Your task to perform on an android device: turn notification dots off Image 0: 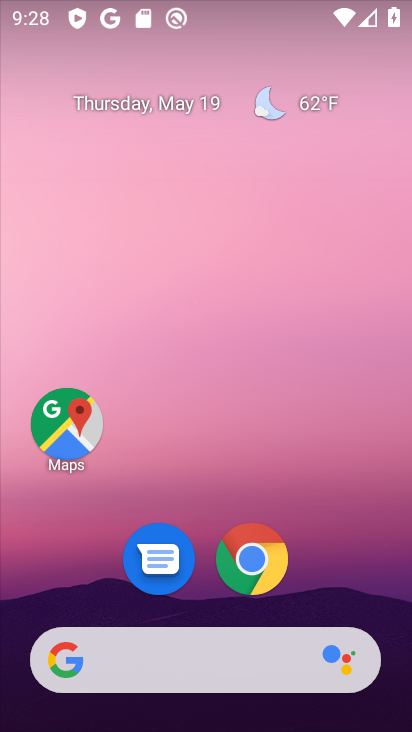
Step 0: drag from (334, 578) to (394, 80)
Your task to perform on an android device: turn notification dots off Image 1: 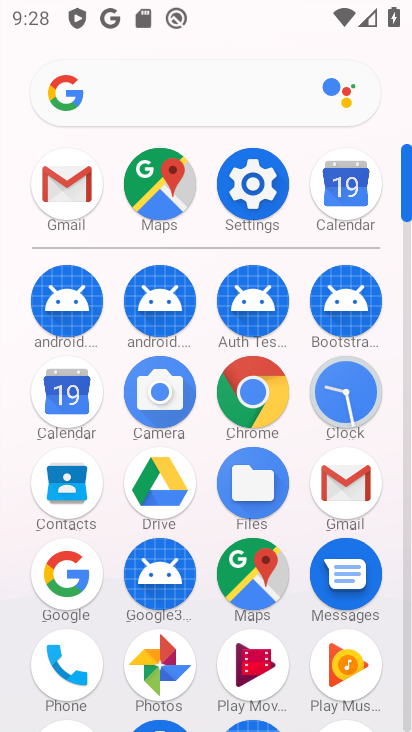
Step 1: click (273, 168)
Your task to perform on an android device: turn notification dots off Image 2: 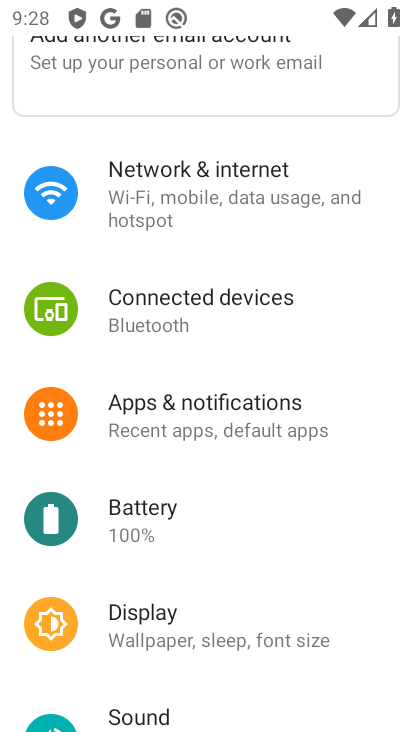
Step 2: click (234, 422)
Your task to perform on an android device: turn notification dots off Image 3: 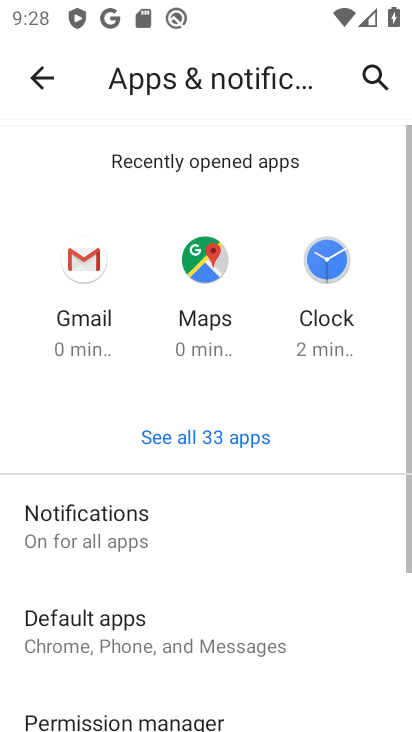
Step 3: click (203, 518)
Your task to perform on an android device: turn notification dots off Image 4: 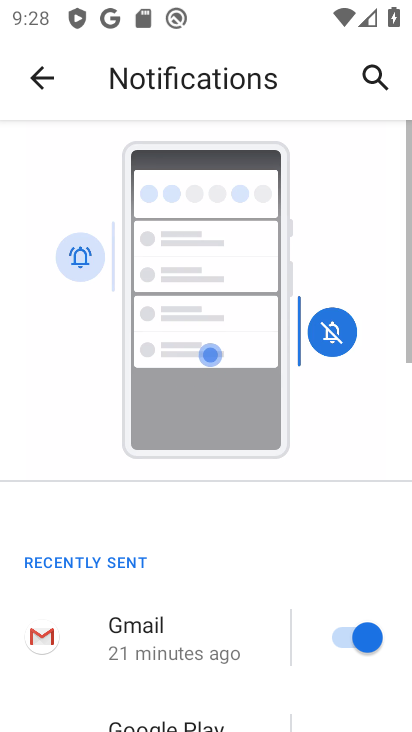
Step 4: drag from (203, 518) to (298, 59)
Your task to perform on an android device: turn notification dots off Image 5: 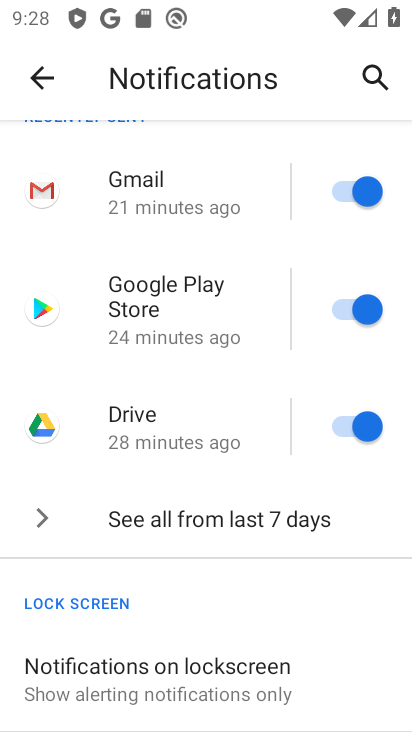
Step 5: drag from (207, 642) to (267, 302)
Your task to perform on an android device: turn notification dots off Image 6: 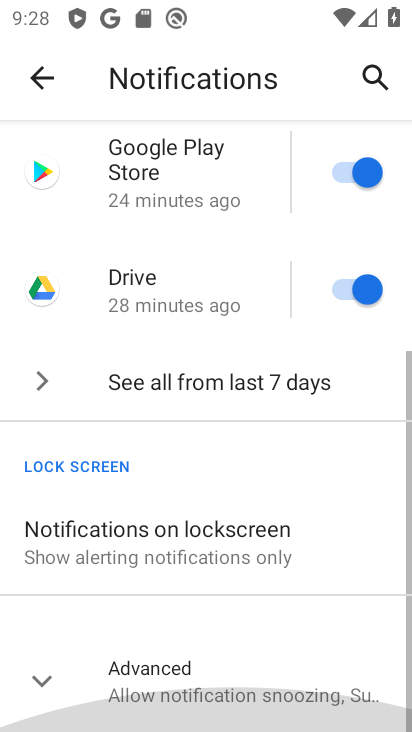
Step 6: click (290, 227)
Your task to perform on an android device: turn notification dots off Image 7: 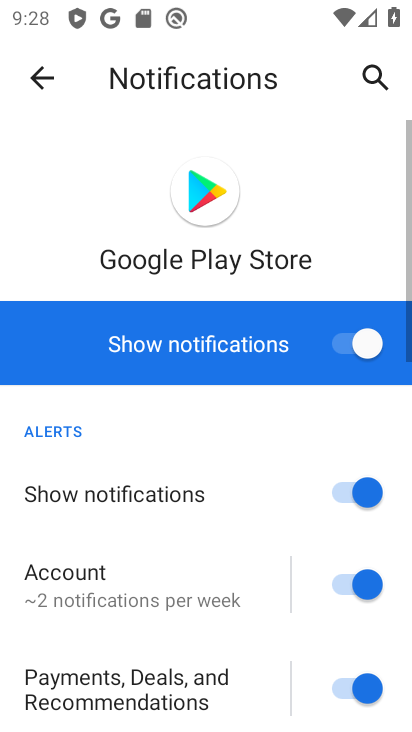
Step 7: drag from (176, 656) to (236, 327)
Your task to perform on an android device: turn notification dots off Image 8: 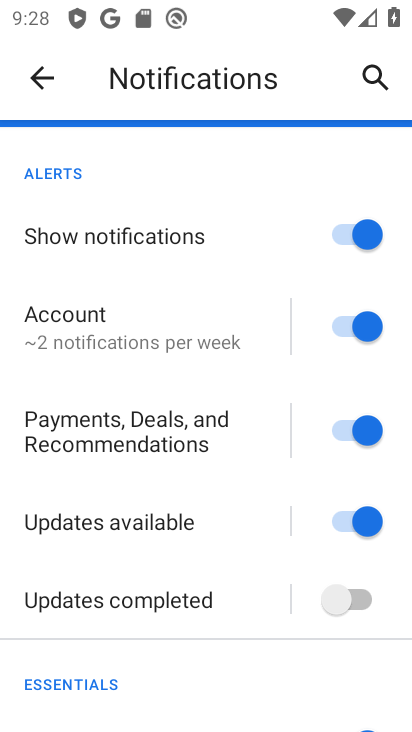
Step 8: click (47, 83)
Your task to perform on an android device: turn notification dots off Image 9: 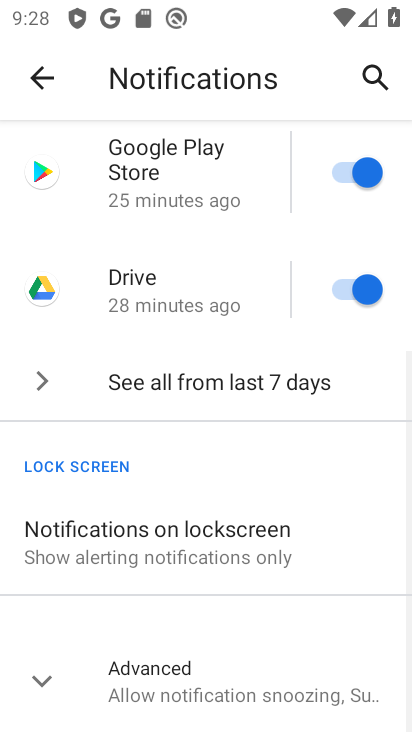
Step 9: click (166, 657)
Your task to perform on an android device: turn notification dots off Image 10: 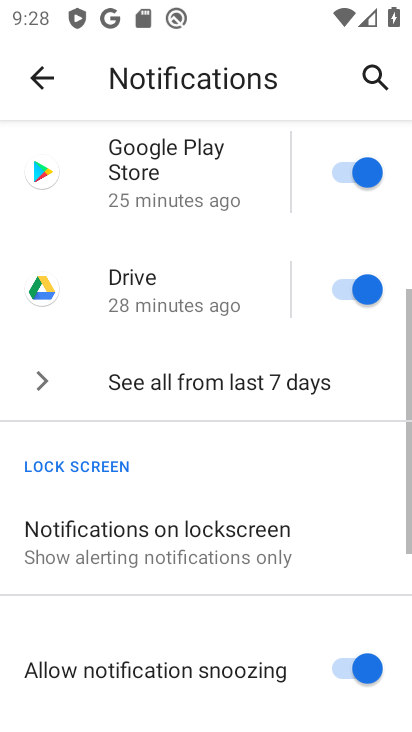
Step 10: drag from (267, 642) to (310, 154)
Your task to perform on an android device: turn notification dots off Image 11: 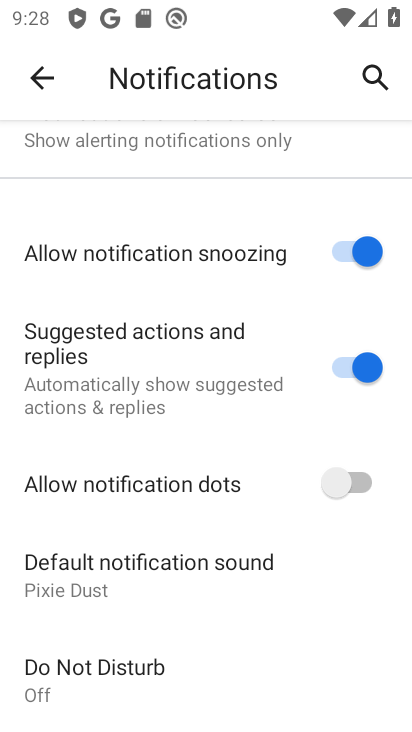
Step 11: click (322, 495)
Your task to perform on an android device: turn notification dots off Image 12: 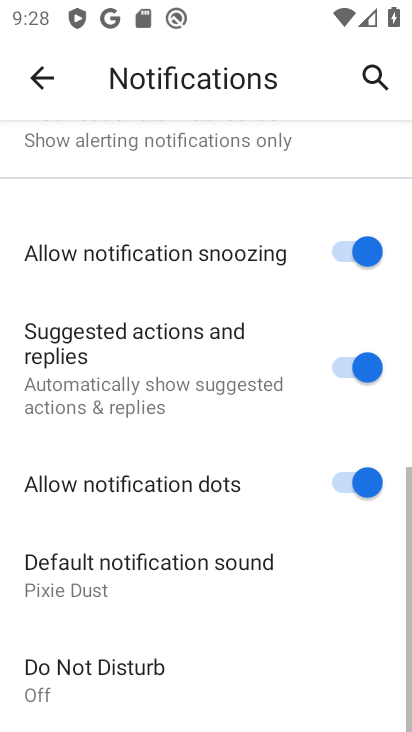
Step 12: click (322, 495)
Your task to perform on an android device: turn notification dots off Image 13: 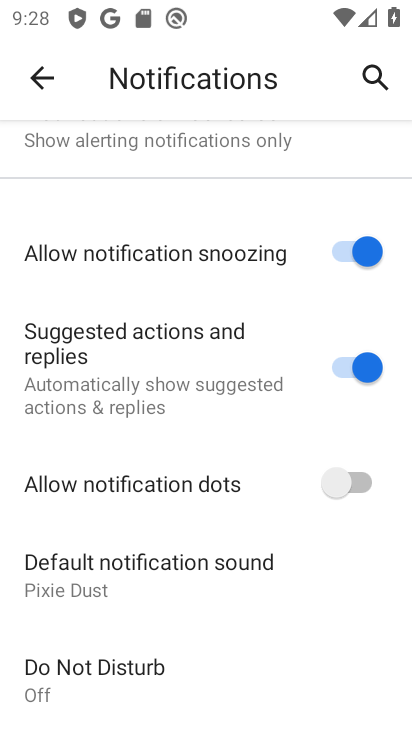
Step 13: task complete